Your task to perform on an android device: Open Google Chrome Image 0: 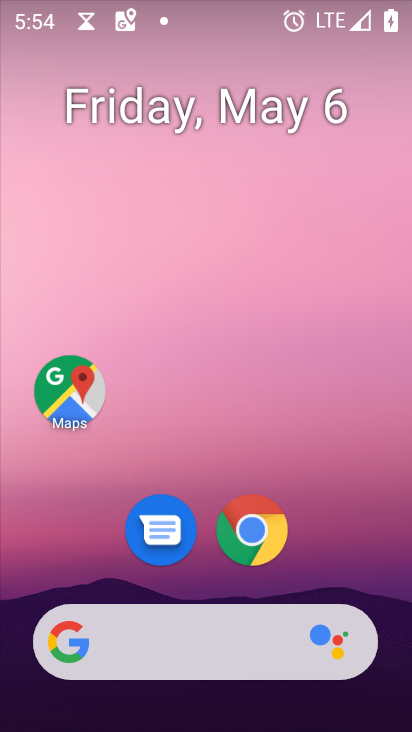
Step 0: click (256, 527)
Your task to perform on an android device: Open Google Chrome Image 1: 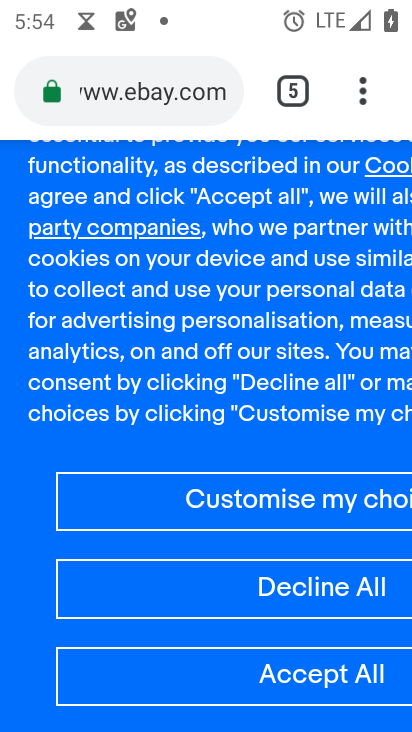
Step 1: task complete